Your task to perform on an android device: Go to display settings Image 0: 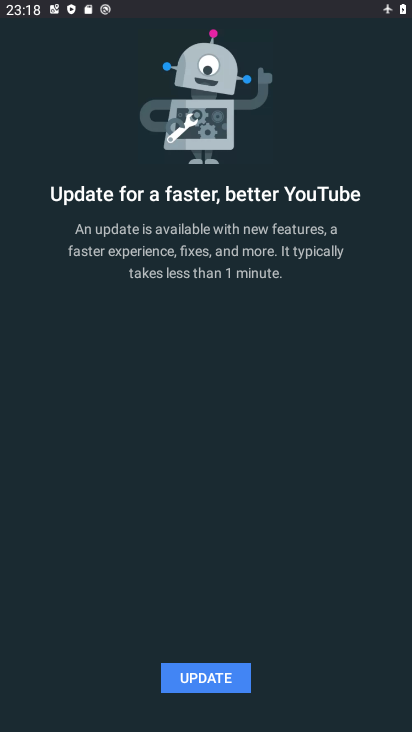
Step 0: press home button
Your task to perform on an android device: Go to display settings Image 1: 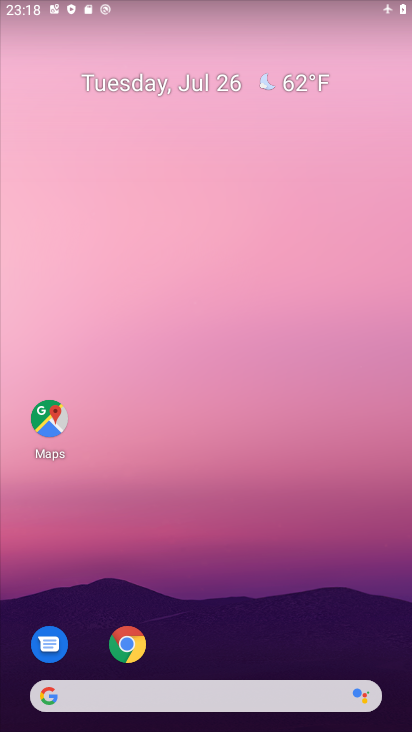
Step 1: drag from (218, 667) to (247, 1)
Your task to perform on an android device: Go to display settings Image 2: 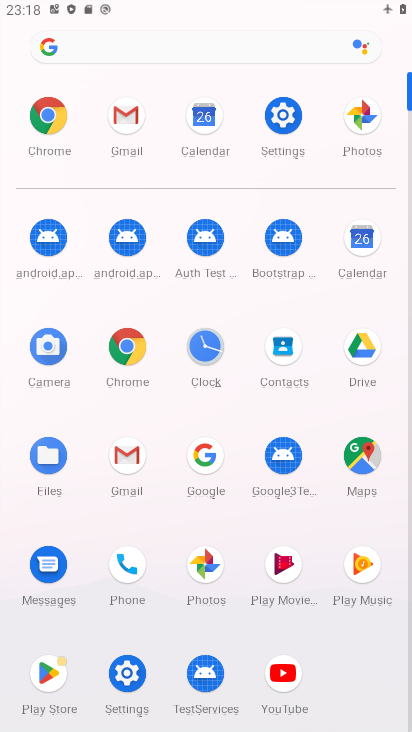
Step 2: click (287, 119)
Your task to perform on an android device: Go to display settings Image 3: 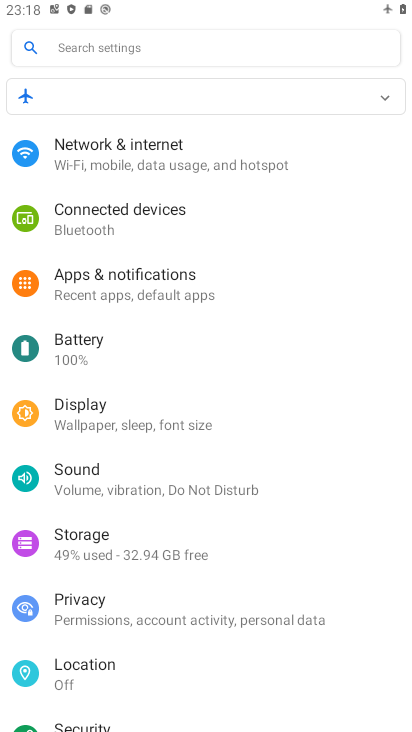
Step 3: click (74, 431)
Your task to perform on an android device: Go to display settings Image 4: 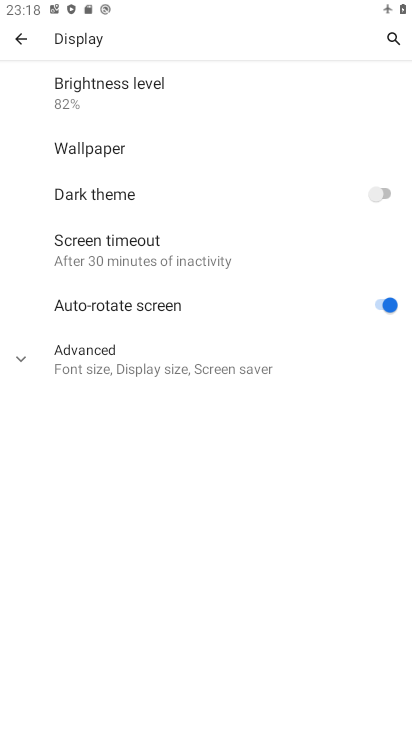
Step 4: task complete